Your task to perform on an android device: Go to internet settings Image 0: 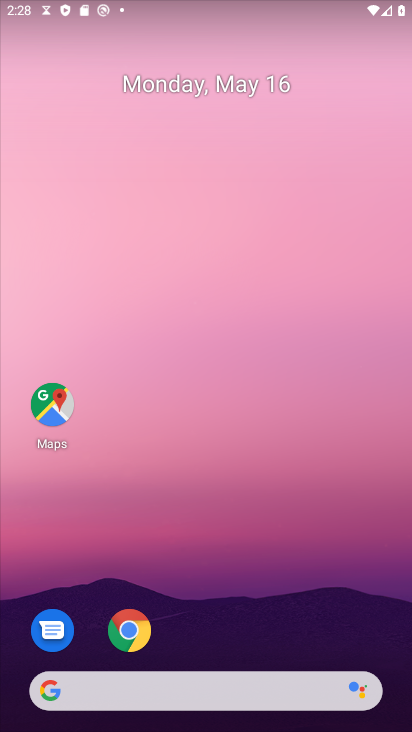
Step 0: drag from (212, 629) to (256, 51)
Your task to perform on an android device: Go to internet settings Image 1: 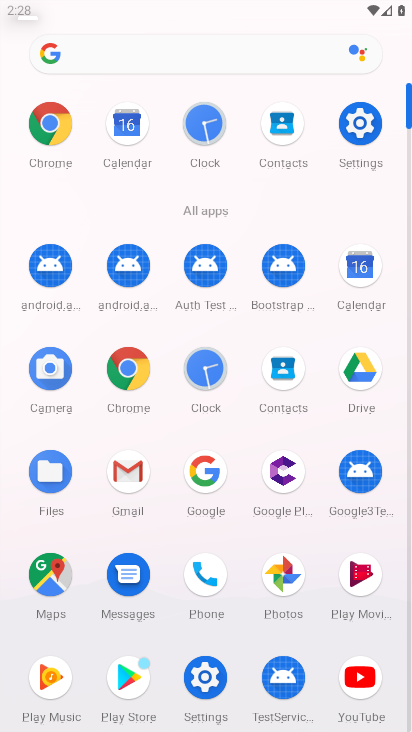
Step 1: click (357, 122)
Your task to perform on an android device: Go to internet settings Image 2: 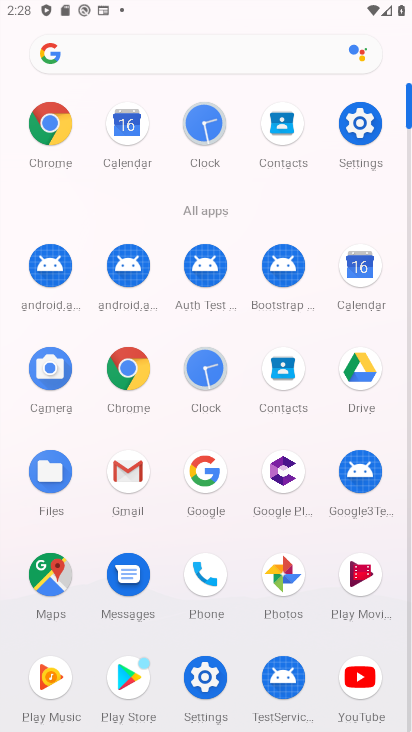
Step 2: click (357, 122)
Your task to perform on an android device: Go to internet settings Image 3: 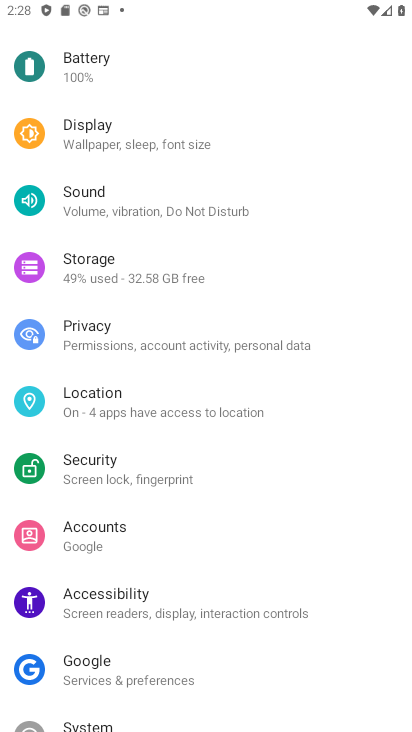
Step 3: drag from (126, 103) to (78, 642)
Your task to perform on an android device: Go to internet settings Image 4: 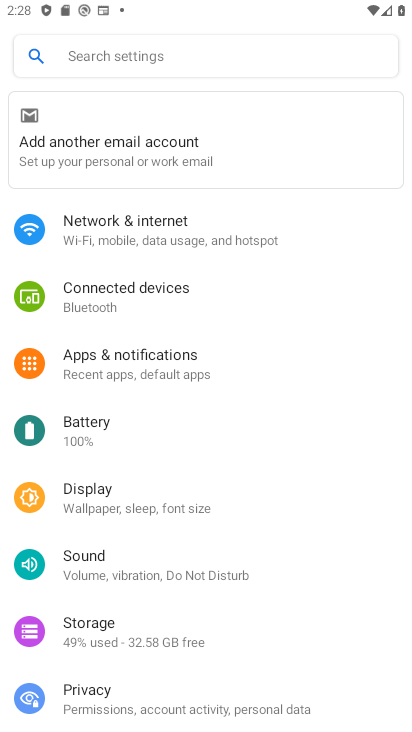
Step 4: drag from (159, 125) to (147, 632)
Your task to perform on an android device: Go to internet settings Image 5: 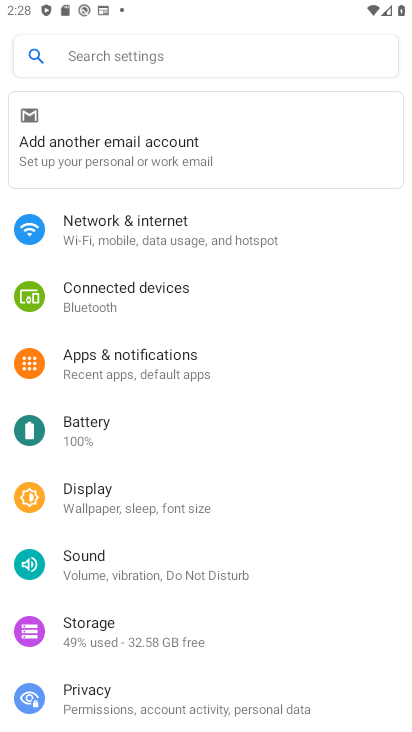
Step 5: click (179, 223)
Your task to perform on an android device: Go to internet settings Image 6: 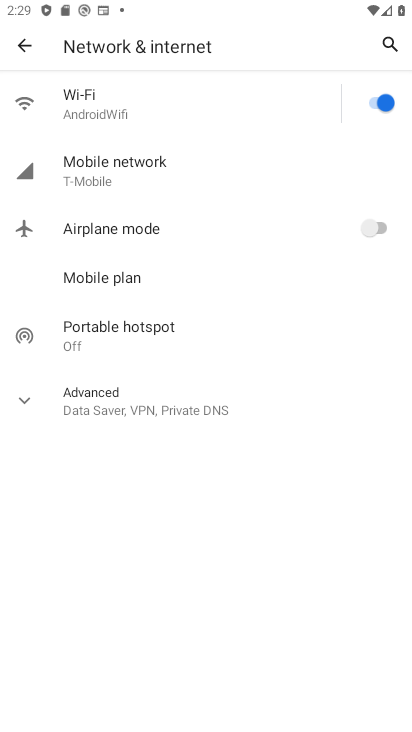
Step 6: click (31, 393)
Your task to perform on an android device: Go to internet settings Image 7: 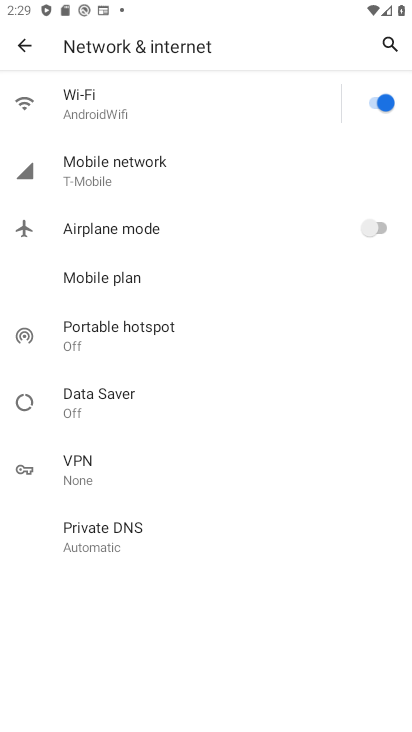
Step 7: task complete